Your task to perform on an android device: Go to notification settings Image 0: 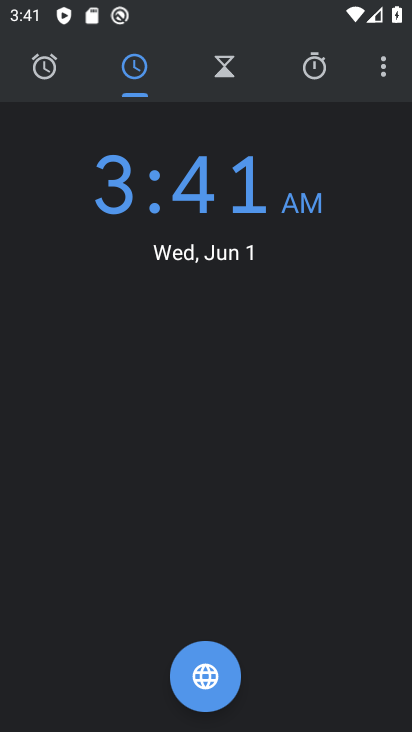
Step 0: press home button
Your task to perform on an android device: Go to notification settings Image 1: 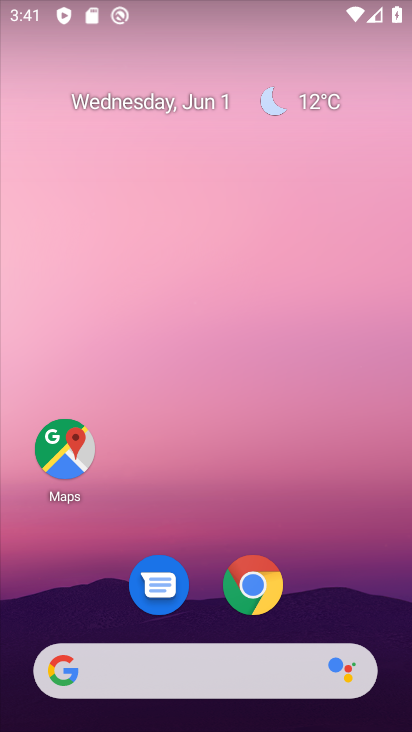
Step 1: drag from (224, 457) to (245, 0)
Your task to perform on an android device: Go to notification settings Image 2: 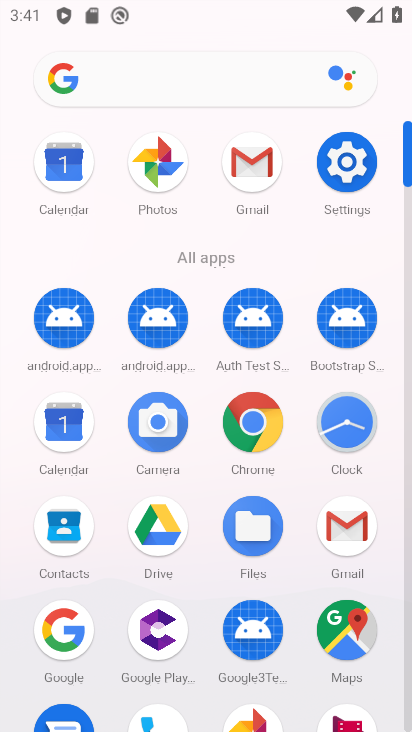
Step 2: drag from (229, 101) to (239, 1)
Your task to perform on an android device: Go to notification settings Image 3: 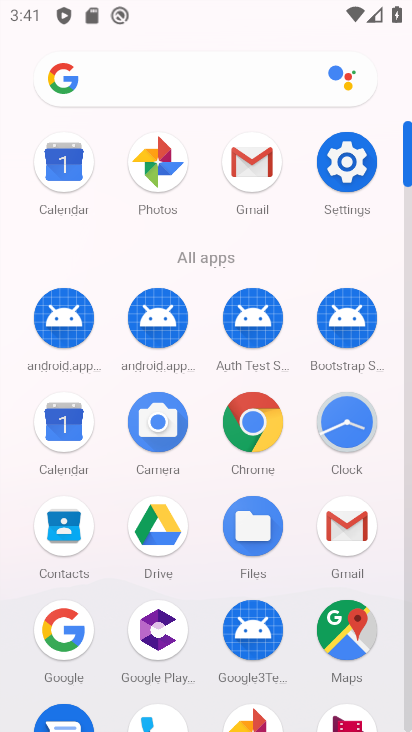
Step 3: click (347, 156)
Your task to perform on an android device: Go to notification settings Image 4: 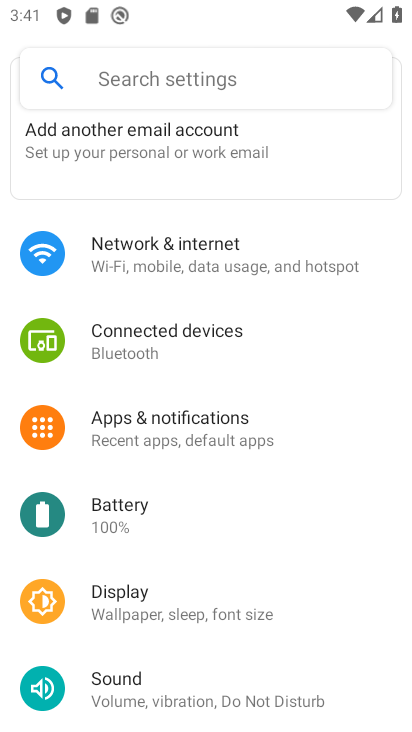
Step 4: click (199, 423)
Your task to perform on an android device: Go to notification settings Image 5: 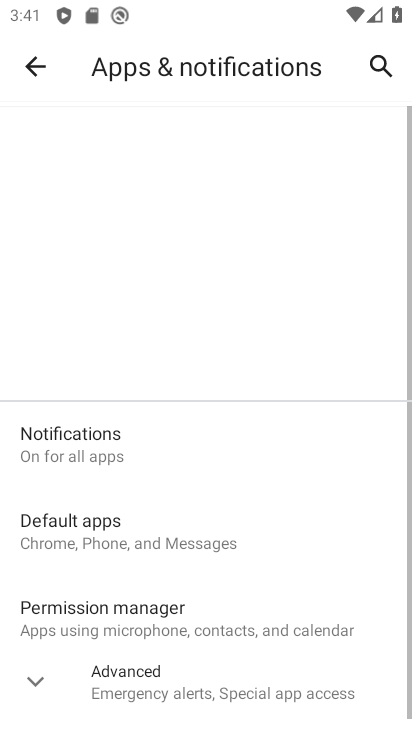
Step 5: click (199, 422)
Your task to perform on an android device: Go to notification settings Image 6: 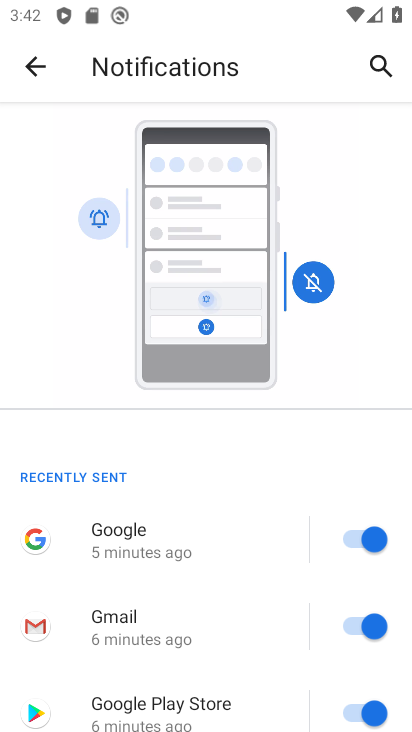
Step 6: task complete